Your task to perform on an android device: Open Youtube and go to the subscriptions tab Image 0: 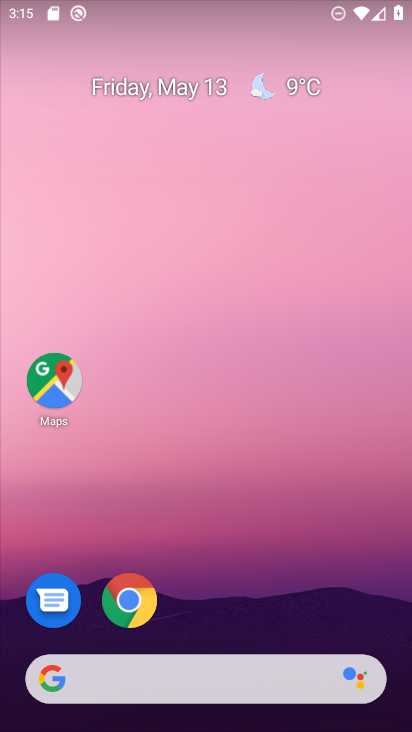
Step 0: drag from (233, 539) to (360, 85)
Your task to perform on an android device: Open Youtube and go to the subscriptions tab Image 1: 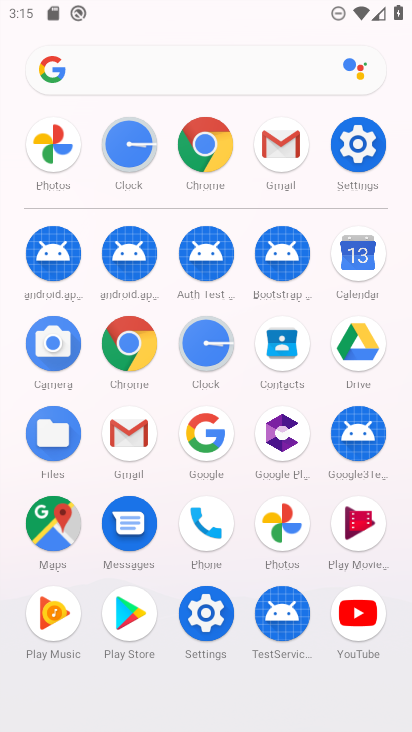
Step 1: click (356, 611)
Your task to perform on an android device: Open Youtube and go to the subscriptions tab Image 2: 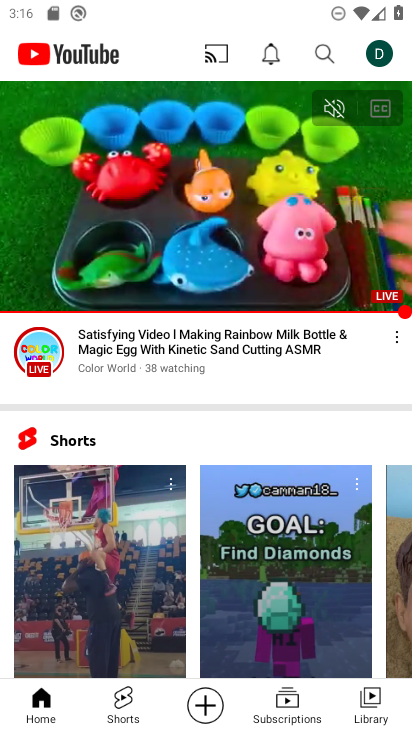
Step 2: click (286, 701)
Your task to perform on an android device: Open Youtube and go to the subscriptions tab Image 3: 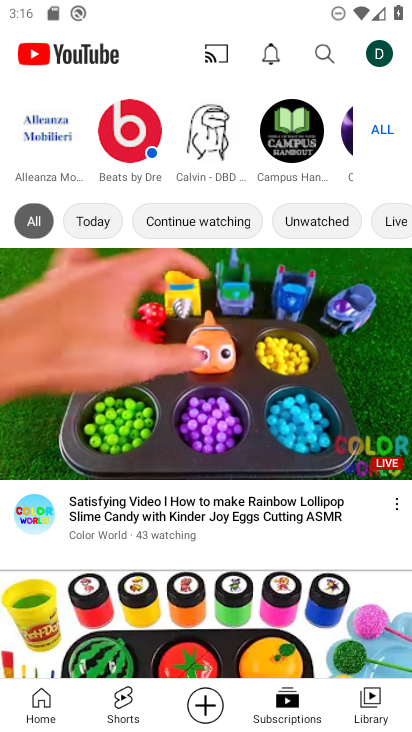
Step 3: task complete